Your task to perform on an android device: What's on my calendar tomorrow? Image 0: 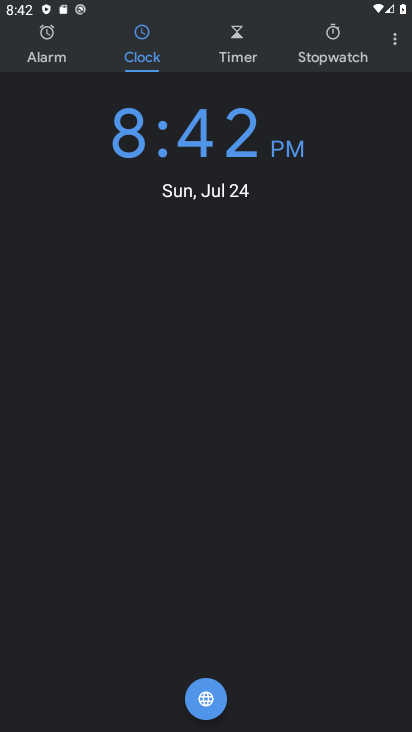
Step 0: press back button
Your task to perform on an android device: What's on my calendar tomorrow? Image 1: 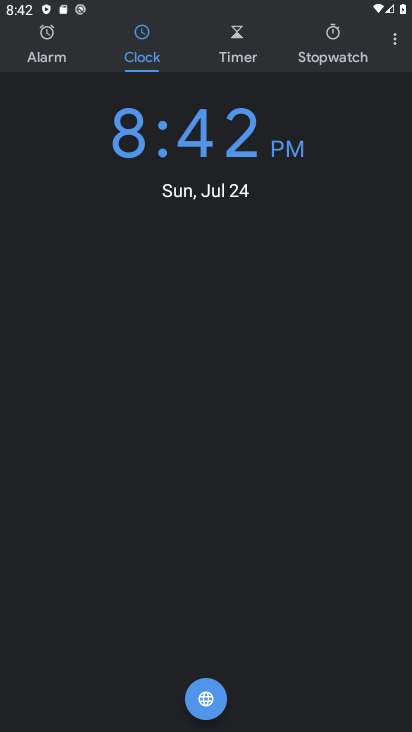
Step 1: press back button
Your task to perform on an android device: What's on my calendar tomorrow? Image 2: 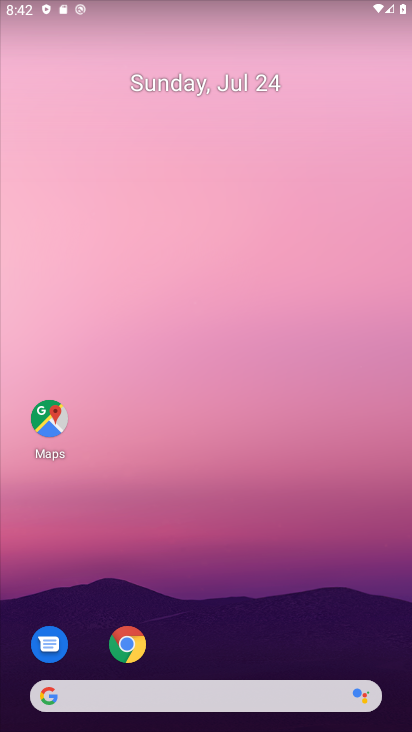
Step 2: drag from (295, 595) to (248, 139)
Your task to perform on an android device: What's on my calendar tomorrow? Image 3: 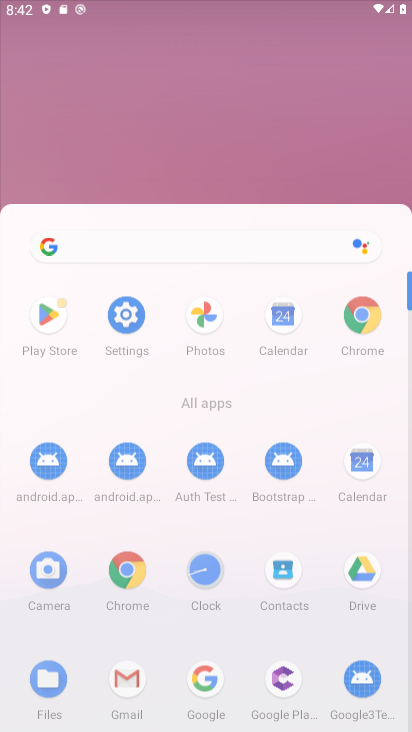
Step 3: drag from (287, 638) to (232, 246)
Your task to perform on an android device: What's on my calendar tomorrow? Image 4: 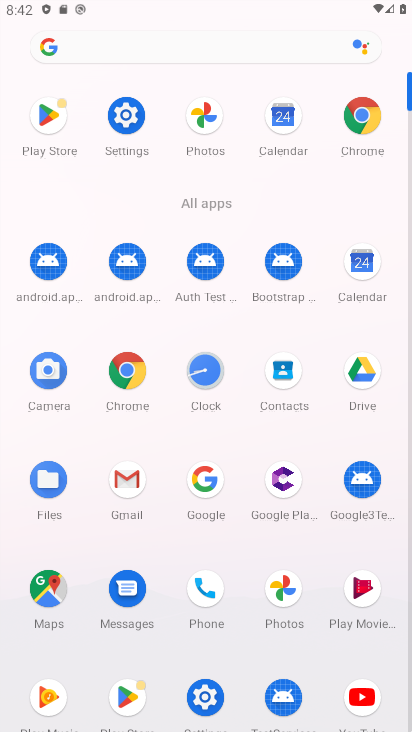
Step 4: drag from (183, 466) to (195, 356)
Your task to perform on an android device: What's on my calendar tomorrow? Image 5: 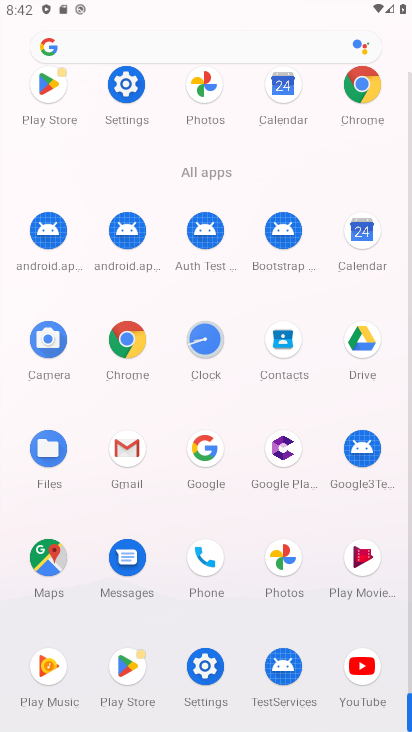
Step 5: click (352, 233)
Your task to perform on an android device: What's on my calendar tomorrow? Image 6: 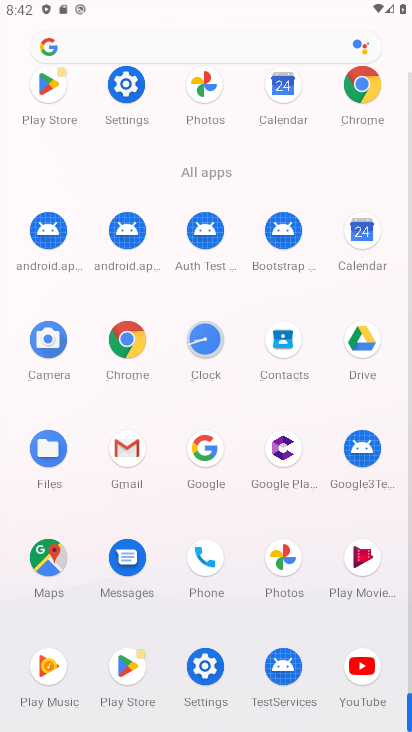
Step 6: click (365, 234)
Your task to perform on an android device: What's on my calendar tomorrow? Image 7: 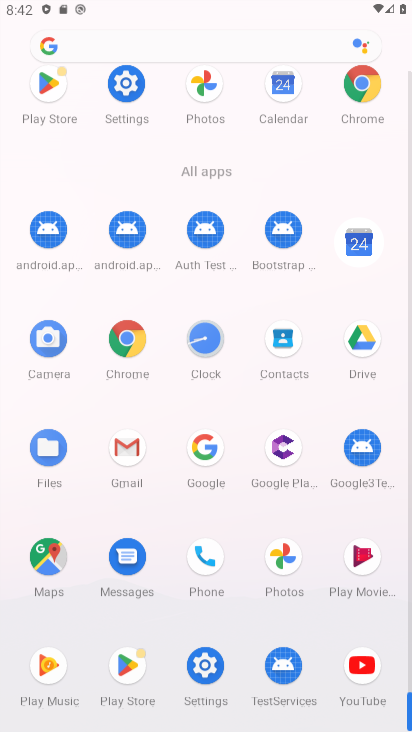
Step 7: click (366, 233)
Your task to perform on an android device: What's on my calendar tomorrow? Image 8: 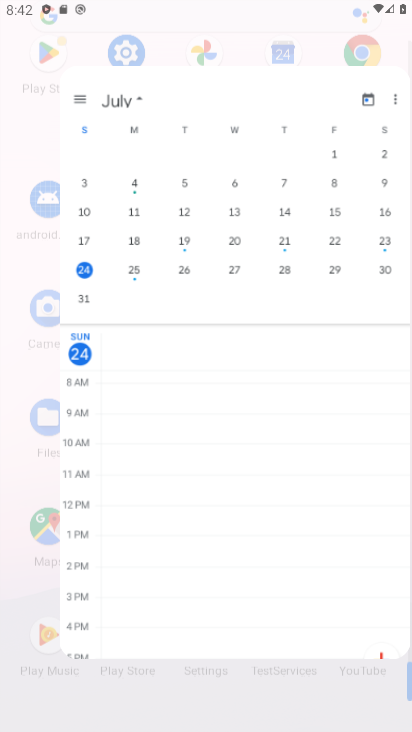
Step 8: click (353, 227)
Your task to perform on an android device: What's on my calendar tomorrow? Image 9: 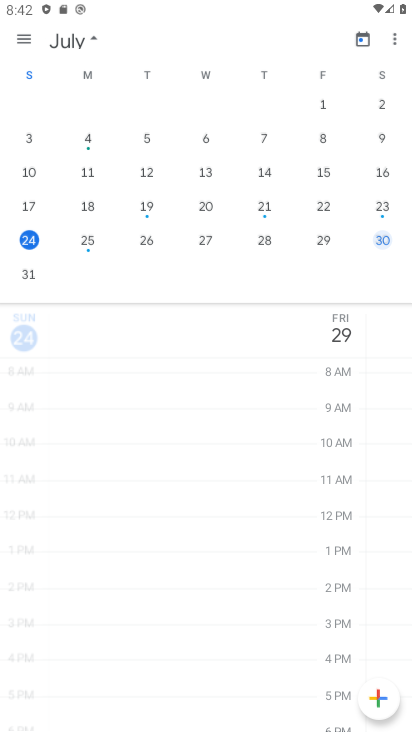
Step 9: click (352, 228)
Your task to perform on an android device: What's on my calendar tomorrow? Image 10: 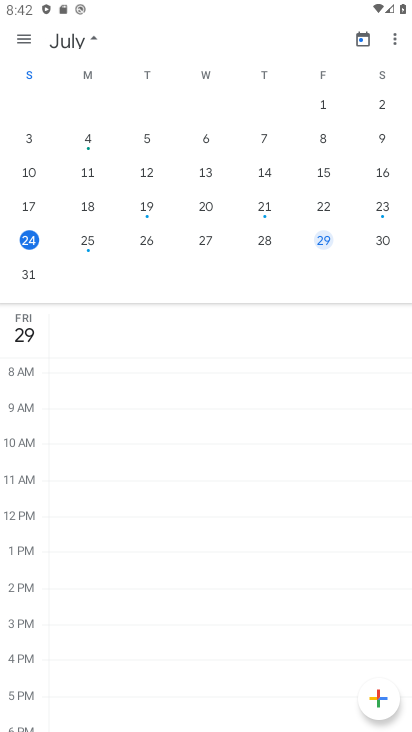
Step 10: click (145, 248)
Your task to perform on an android device: What's on my calendar tomorrow? Image 11: 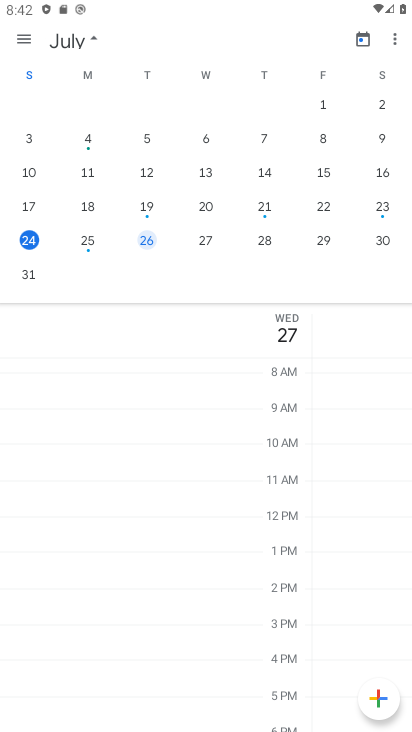
Step 11: click (144, 247)
Your task to perform on an android device: What's on my calendar tomorrow? Image 12: 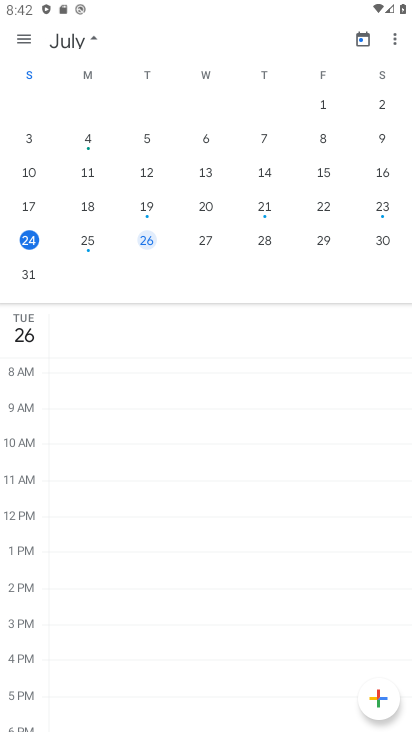
Step 12: click (143, 244)
Your task to perform on an android device: What's on my calendar tomorrow? Image 13: 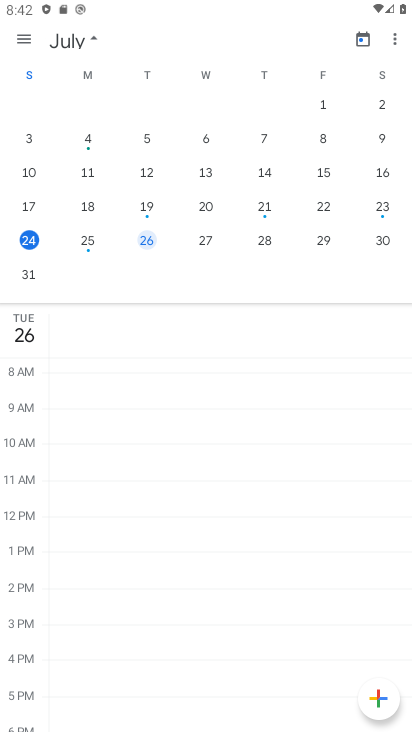
Step 13: click (140, 241)
Your task to perform on an android device: What's on my calendar tomorrow? Image 14: 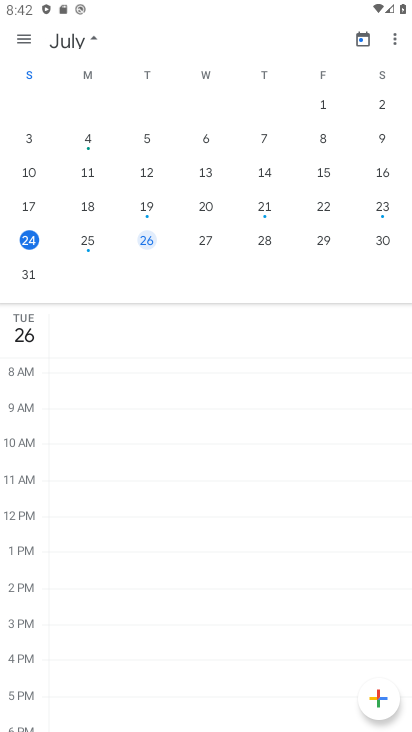
Step 14: click (136, 241)
Your task to perform on an android device: What's on my calendar tomorrow? Image 15: 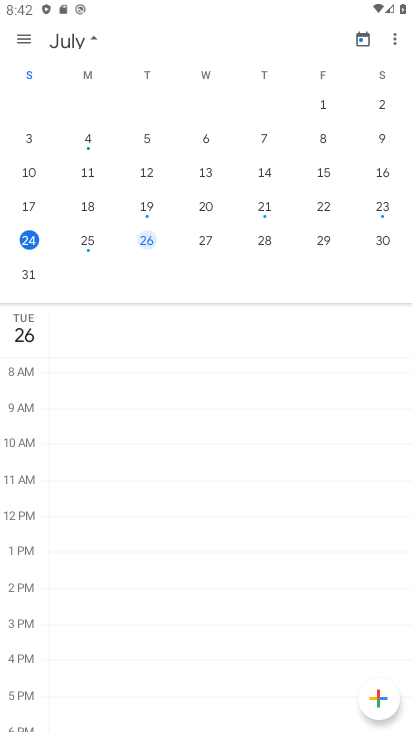
Step 15: click (136, 236)
Your task to perform on an android device: What's on my calendar tomorrow? Image 16: 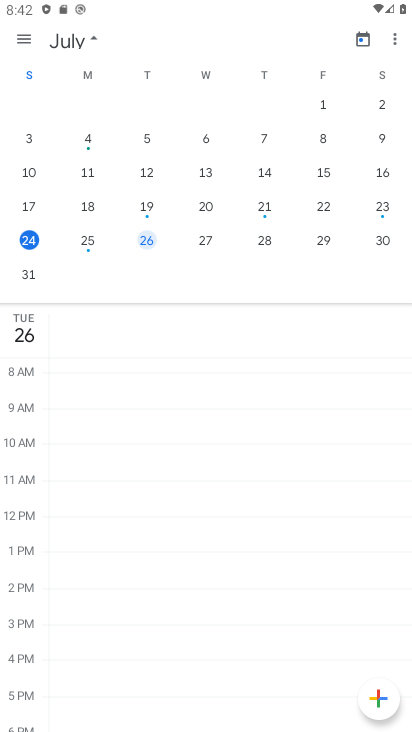
Step 16: task complete